Your task to perform on an android device: turn notification dots on Image 0: 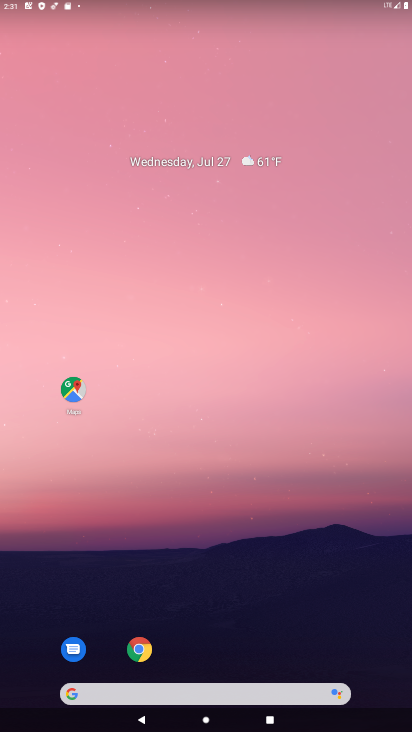
Step 0: click (192, 646)
Your task to perform on an android device: turn notification dots on Image 1: 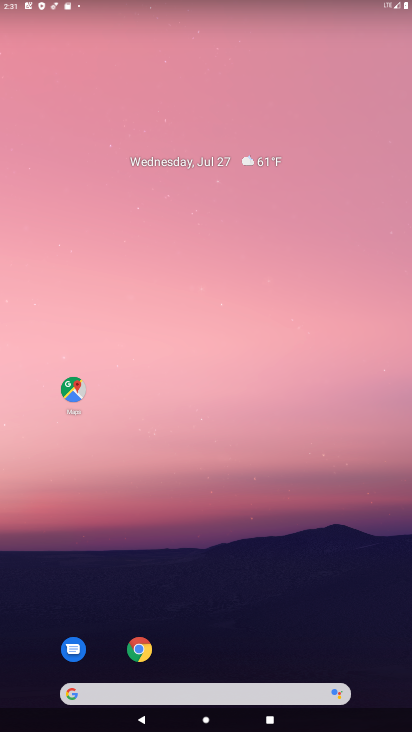
Step 1: drag from (192, 637) to (203, 9)
Your task to perform on an android device: turn notification dots on Image 2: 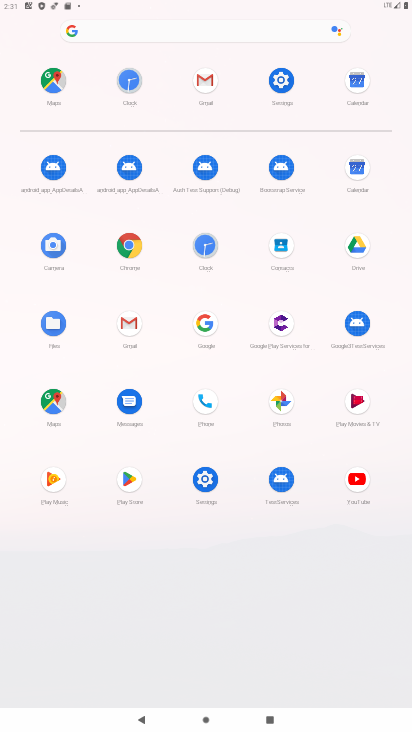
Step 2: click (284, 79)
Your task to perform on an android device: turn notification dots on Image 3: 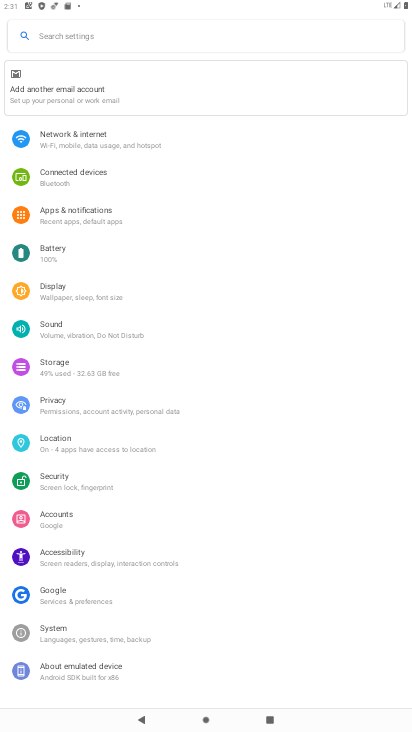
Step 3: click (98, 221)
Your task to perform on an android device: turn notification dots on Image 4: 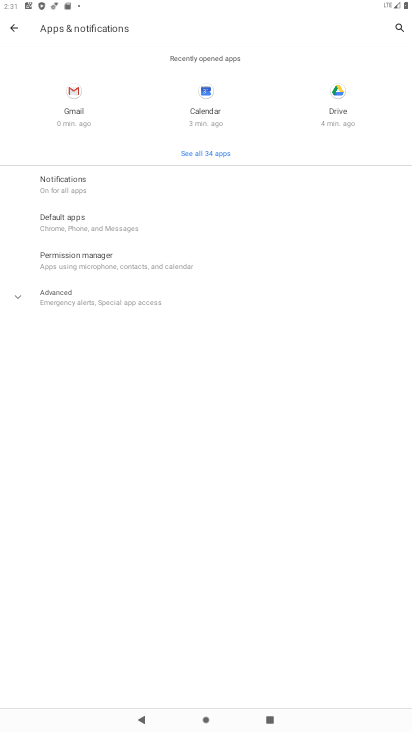
Step 4: click (76, 185)
Your task to perform on an android device: turn notification dots on Image 5: 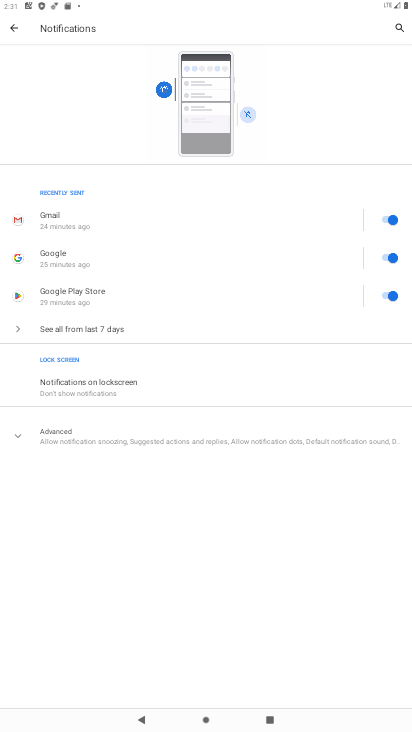
Step 5: click (53, 427)
Your task to perform on an android device: turn notification dots on Image 6: 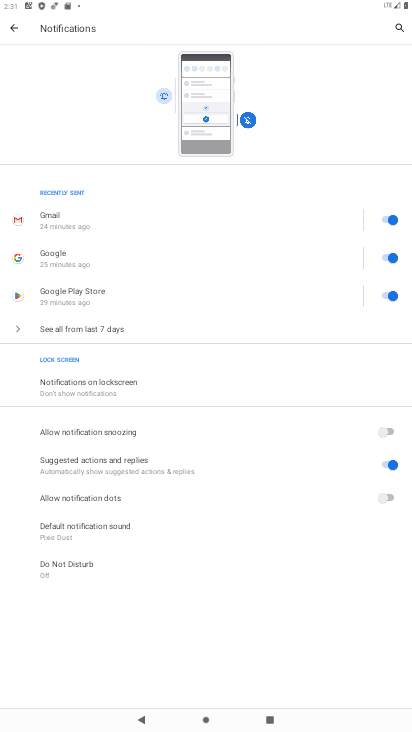
Step 6: click (389, 500)
Your task to perform on an android device: turn notification dots on Image 7: 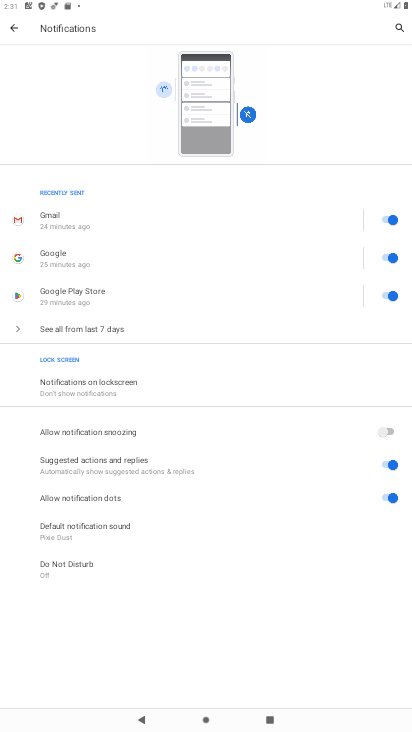
Step 7: task complete